Your task to perform on an android device: read, delete, or share a saved page in the chrome app Image 0: 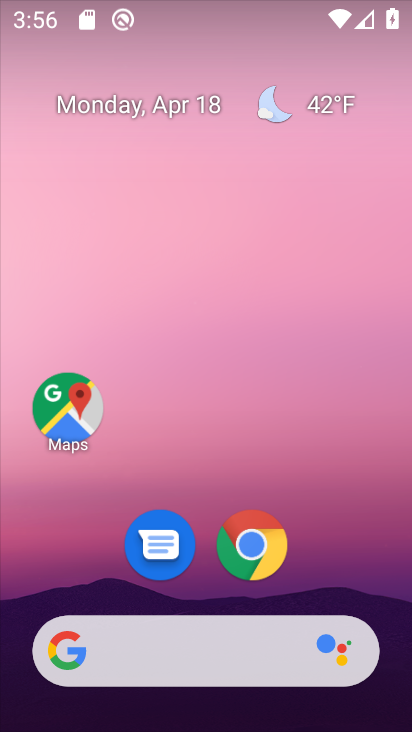
Step 0: drag from (304, 575) to (296, 112)
Your task to perform on an android device: read, delete, or share a saved page in the chrome app Image 1: 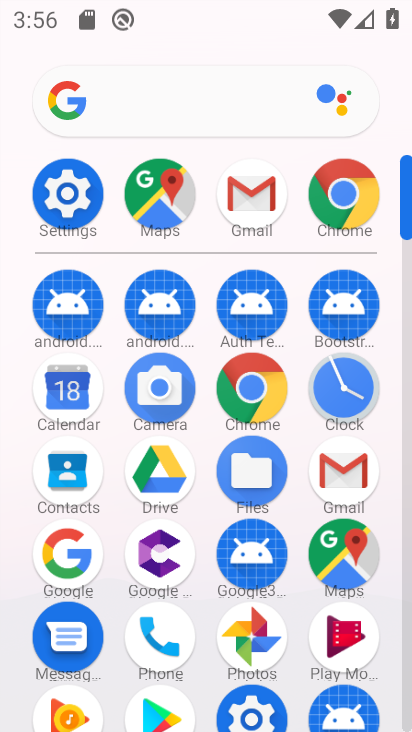
Step 1: click (253, 390)
Your task to perform on an android device: read, delete, or share a saved page in the chrome app Image 2: 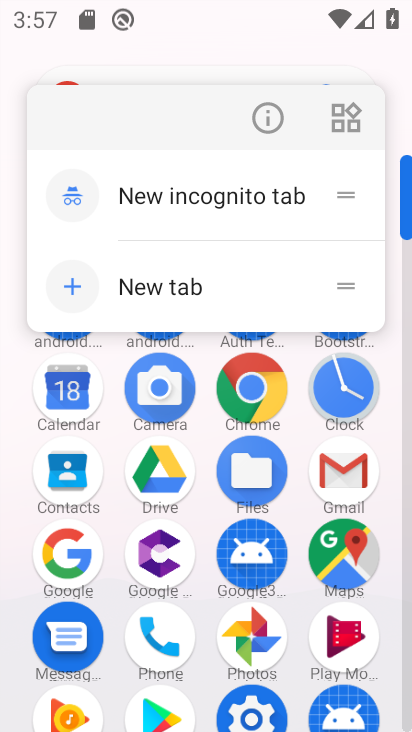
Step 2: click (253, 390)
Your task to perform on an android device: read, delete, or share a saved page in the chrome app Image 3: 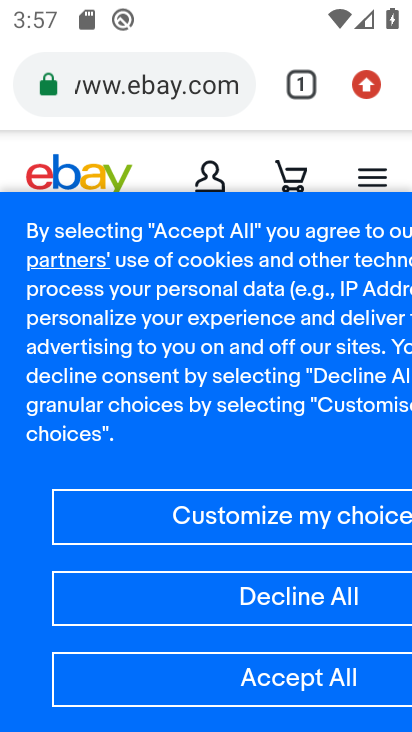
Step 3: click (362, 83)
Your task to perform on an android device: read, delete, or share a saved page in the chrome app Image 4: 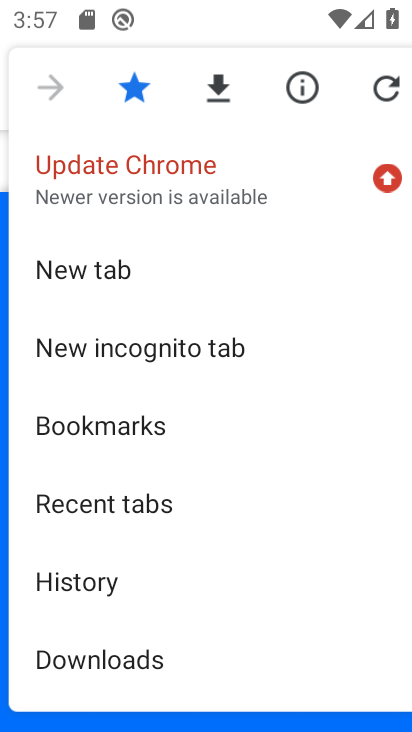
Step 4: drag from (299, 563) to (300, 405)
Your task to perform on an android device: read, delete, or share a saved page in the chrome app Image 5: 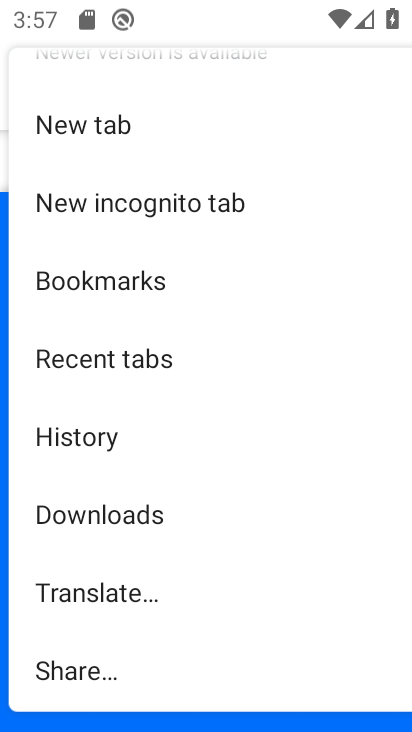
Step 5: click (136, 513)
Your task to perform on an android device: read, delete, or share a saved page in the chrome app Image 6: 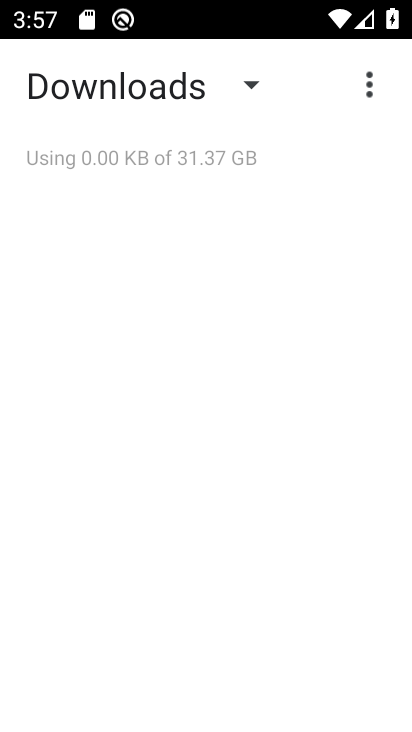
Step 6: click (248, 92)
Your task to perform on an android device: read, delete, or share a saved page in the chrome app Image 7: 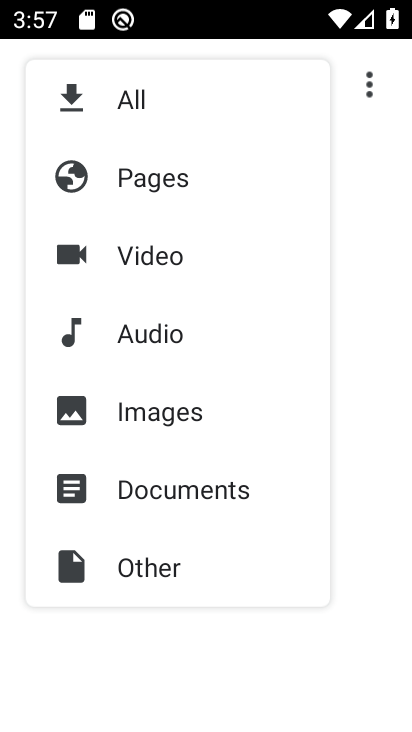
Step 7: click (155, 170)
Your task to perform on an android device: read, delete, or share a saved page in the chrome app Image 8: 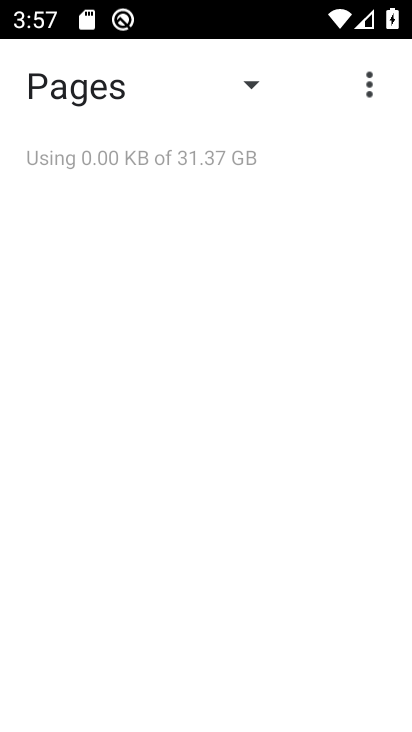
Step 8: task complete